Your task to perform on an android device: toggle improve location accuracy Image 0: 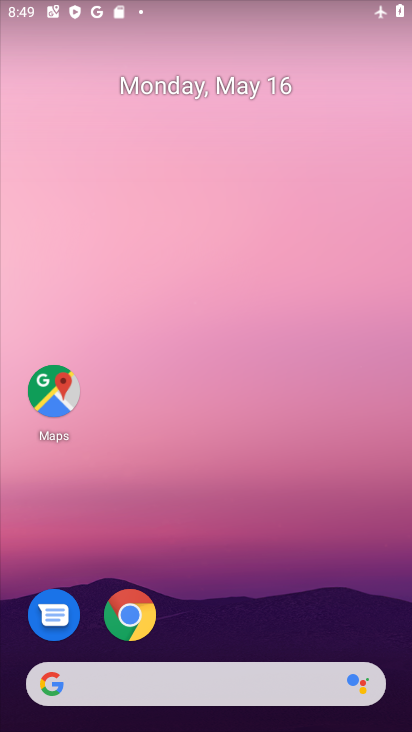
Step 0: drag from (22, 633) to (335, 97)
Your task to perform on an android device: toggle improve location accuracy Image 1: 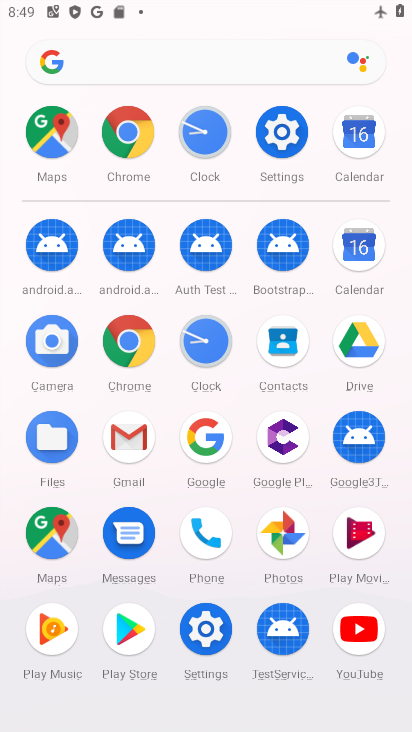
Step 1: click (294, 126)
Your task to perform on an android device: toggle improve location accuracy Image 2: 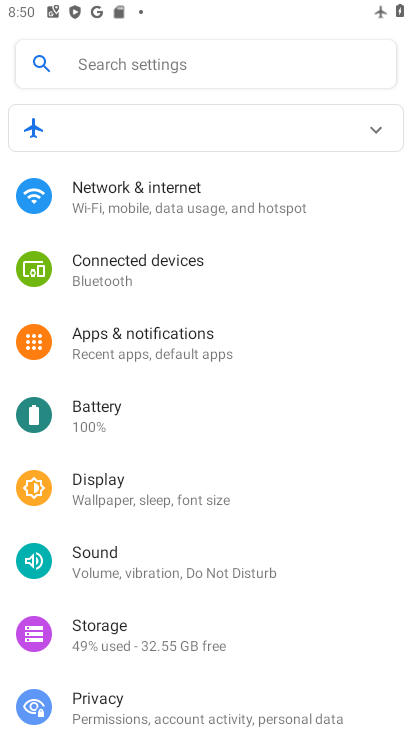
Step 2: drag from (14, 608) to (224, 183)
Your task to perform on an android device: toggle improve location accuracy Image 3: 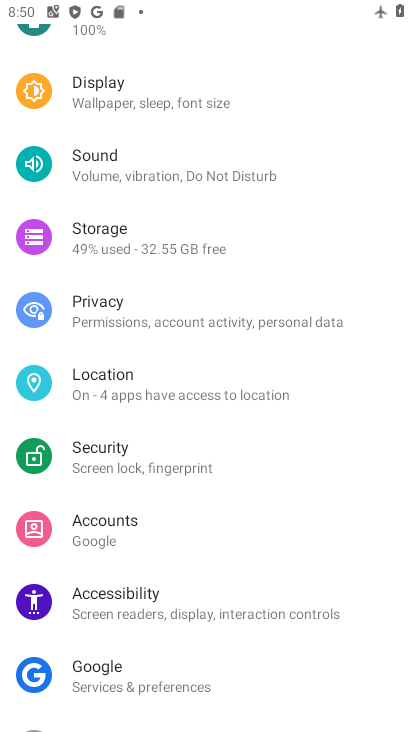
Step 3: click (112, 390)
Your task to perform on an android device: toggle improve location accuracy Image 4: 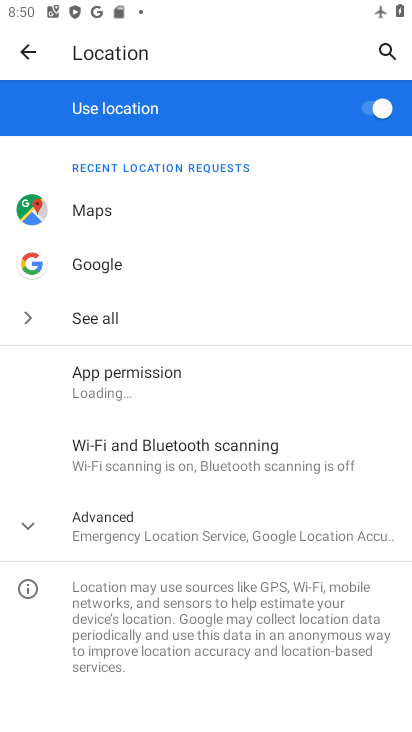
Step 4: click (204, 541)
Your task to perform on an android device: toggle improve location accuracy Image 5: 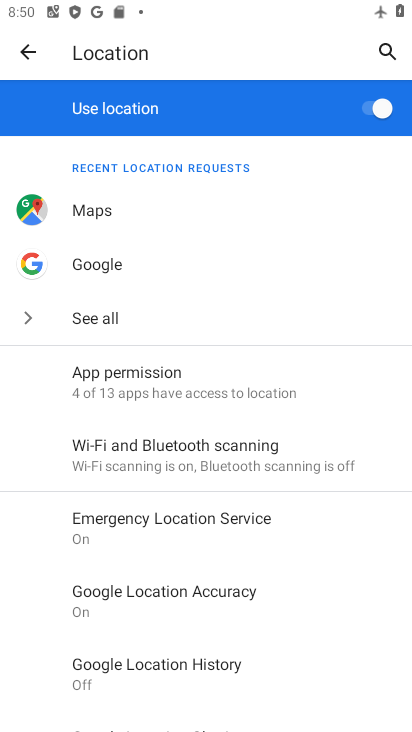
Step 5: drag from (18, 669) to (226, 328)
Your task to perform on an android device: toggle improve location accuracy Image 6: 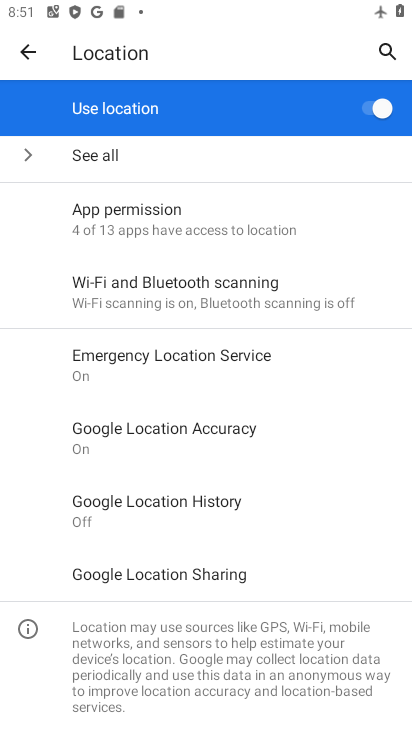
Step 6: click (200, 432)
Your task to perform on an android device: toggle improve location accuracy Image 7: 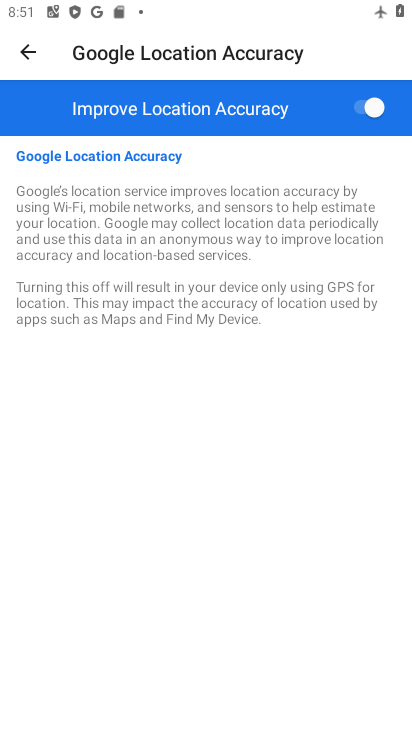
Step 7: click (383, 104)
Your task to perform on an android device: toggle improve location accuracy Image 8: 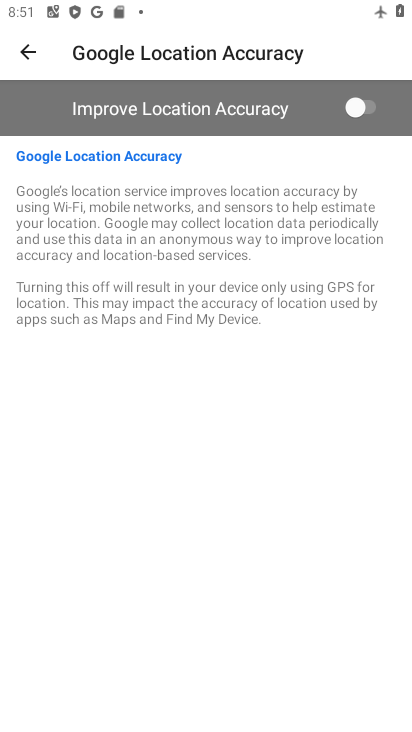
Step 8: task complete